Your task to perform on an android device: open chrome privacy settings Image 0: 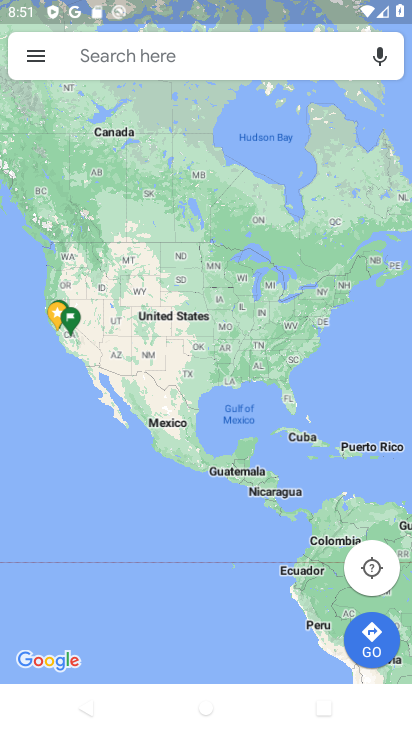
Step 0: press home button
Your task to perform on an android device: open chrome privacy settings Image 1: 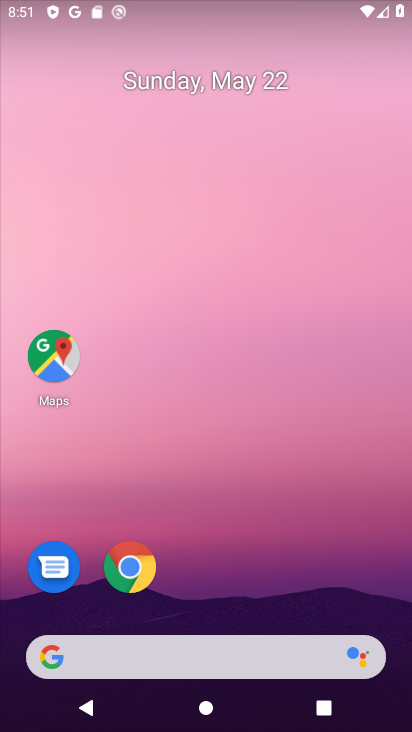
Step 1: drag from (215, 623) to (172, 0)
Your task to perform on an android device: open chrome privacy settings Image 2: 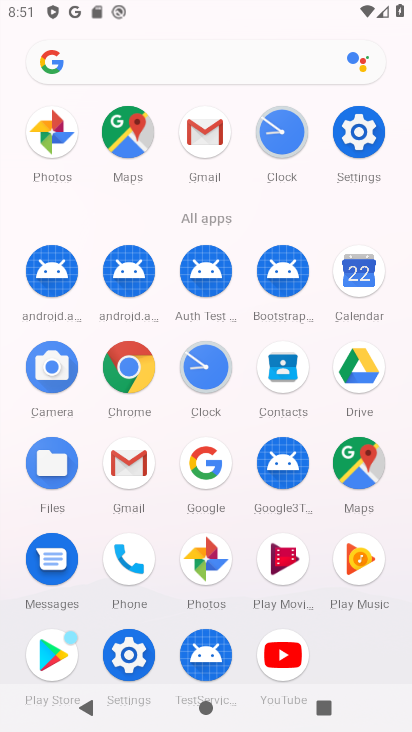
Step 2: click (128, 378)
Your task to perform on an android device: open chrome privacy settings Image 3: 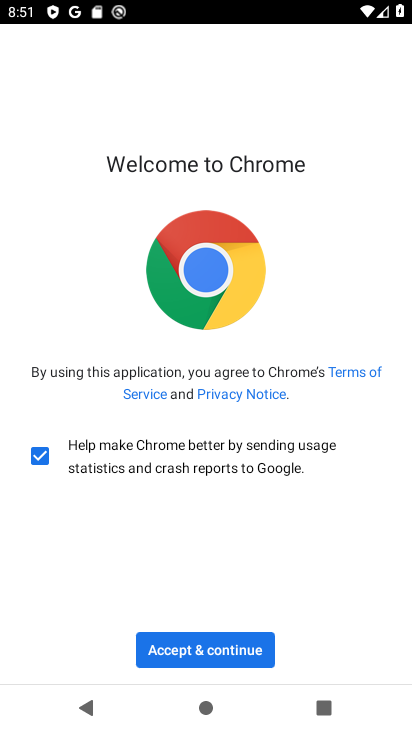
Step 3: click (252, 644)
Your task to perform on an android device: open chrome privacy settings Image 4: 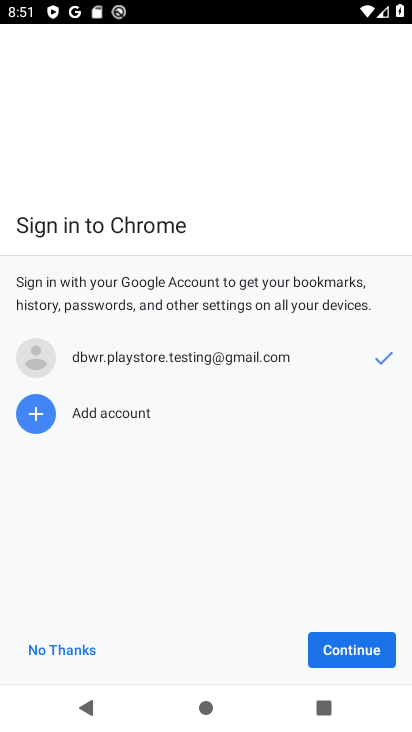
Step 4: click (382, 645)
Your task to perform on an android device: open chrome privacy settings Image 5: 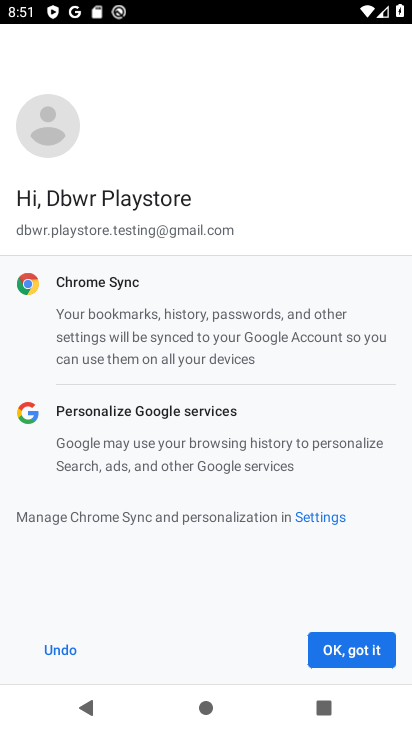
Step 5: click (343, 655)
Your task to perform on an android device: open chrome privacy settings Image 6: 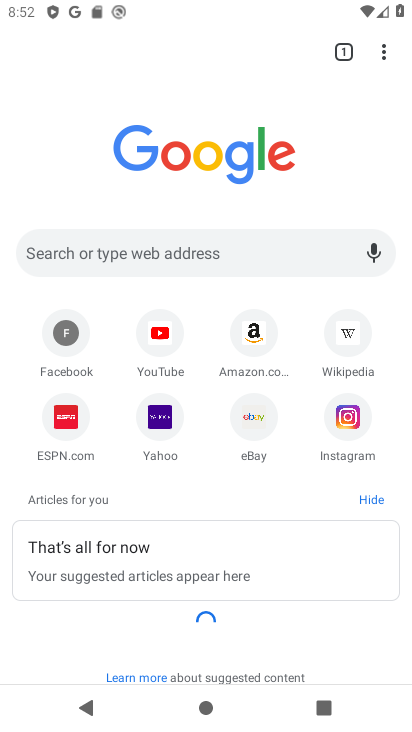
Step 6: click (380, 52)
Your task to perform on an android device: open chrome privacy settings Image 7: 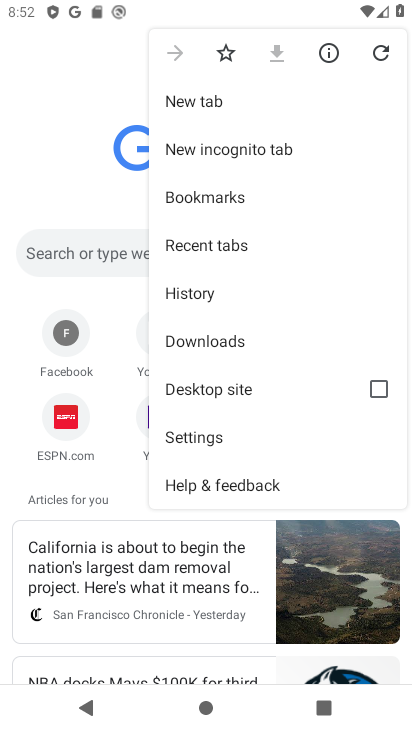
Step 7: click (216, 438)
Your task to perform on an android device: open chrome privacy settings Image 8: 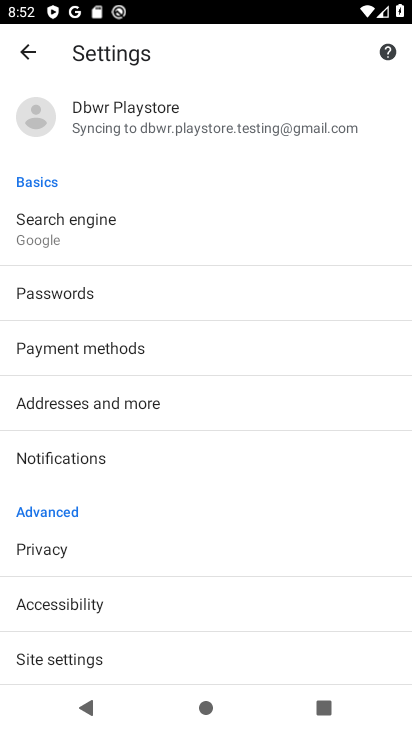
Step 8: click (56, 551)
Your task to perform on an android device: open chrome privacy settings Image 9: 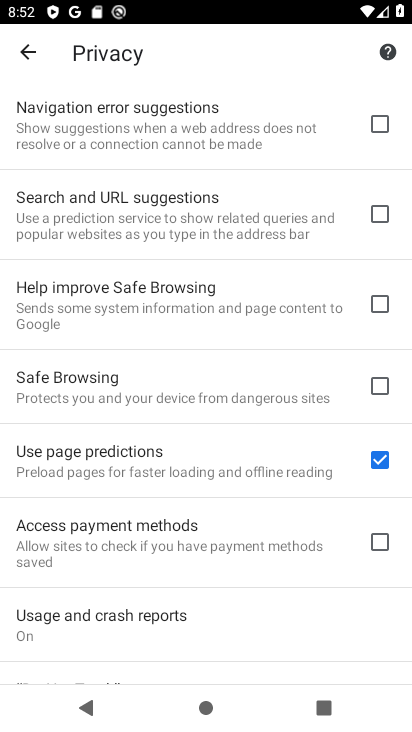
Step 9: task complete